Your task to perform on an android device: Open network settings Image 0: 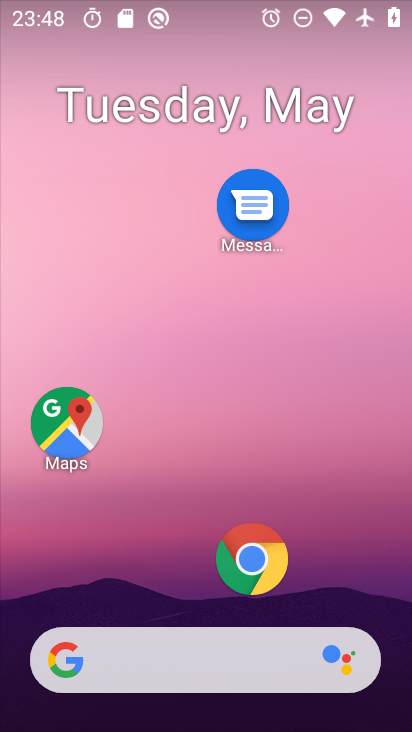
Step 0: drag from (174, 593) to (183, 211)
Your task to perform on an android device: Open network settings Image 1: 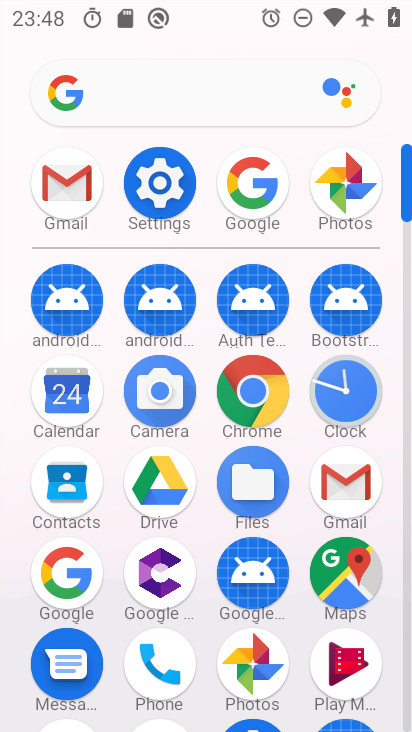
Step 1: click (156, 217)
Your task to perform on an android device: Open network settings Image 2: 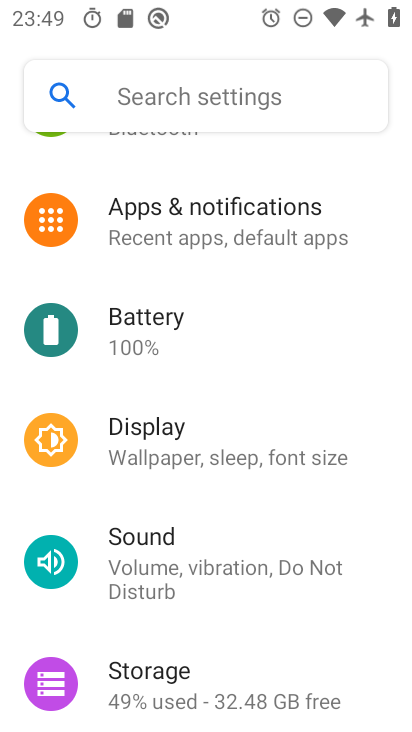
Step 2: drag from (156, 217) to (194, 562)
Your task to perform on an android device: Open network settings Image 3: 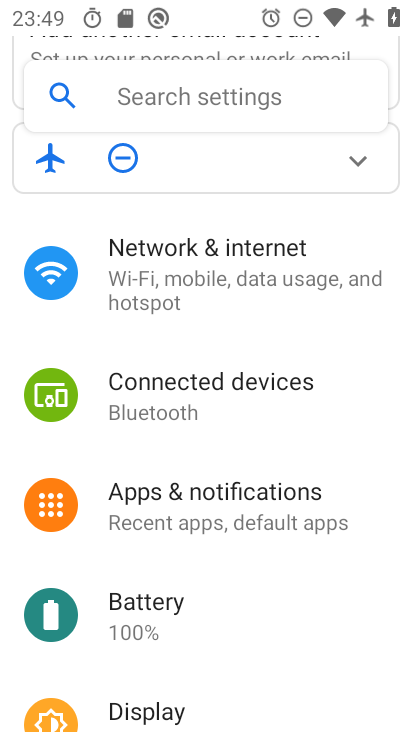
Step 3: click (194, 287)
Your task to perform on an android device: Open network settings Image 4: 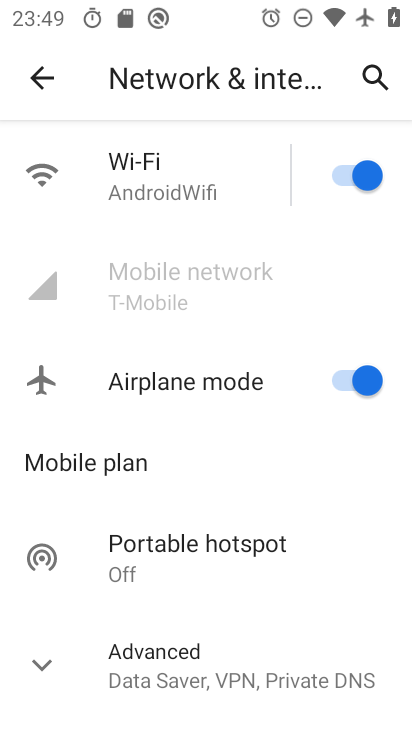
Step 4: task complete